Your task to perform on an android device: Do I have any events today? Image 0: 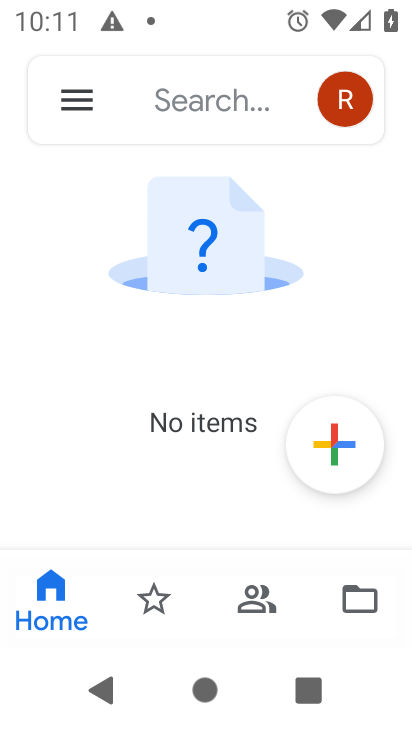
Step 0: press home button
Your task to perform on an android device: Do I have any events today? Image 1: 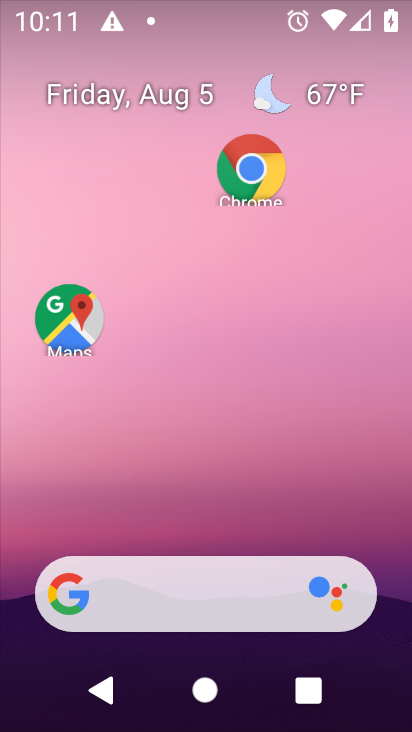
Step 1: drag from (187, 521) to (156, 125)
Your task to perform on an android device: Do I have any events today? Image 2: 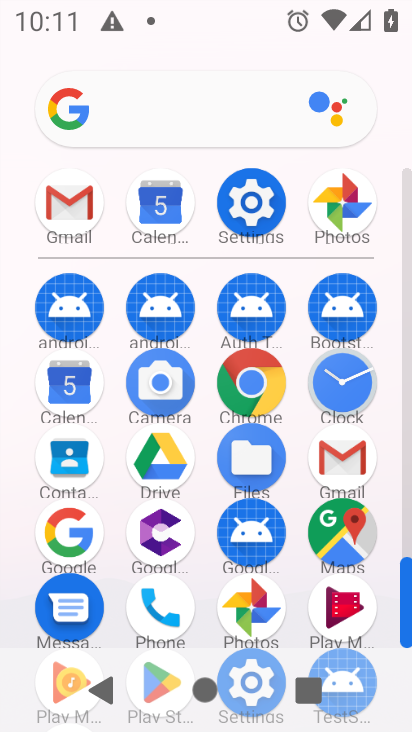
Step 2: click (154, 223)
Your task to perform on an android device: Do I have any events today? Image 3: 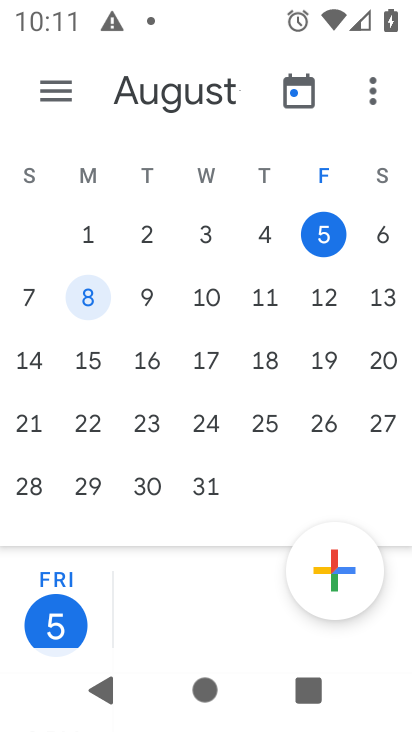
Step 3: click (328, 237)
Your task to perform on an android device: Do I have any events today? Image 4: 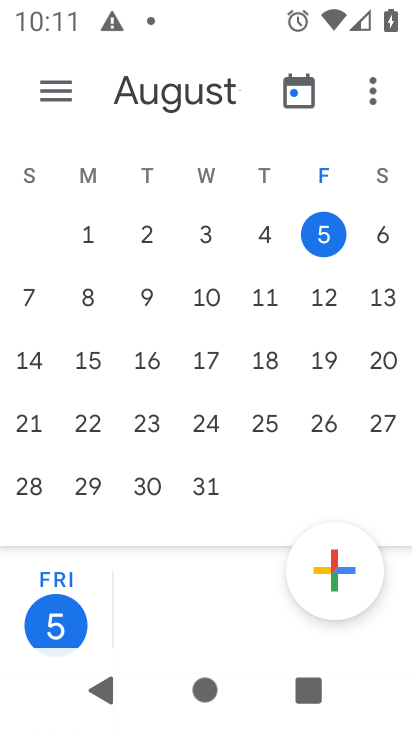
Step 4: task complete